Your task to perform on an android device: check the backup settings in the google photos Image 0: 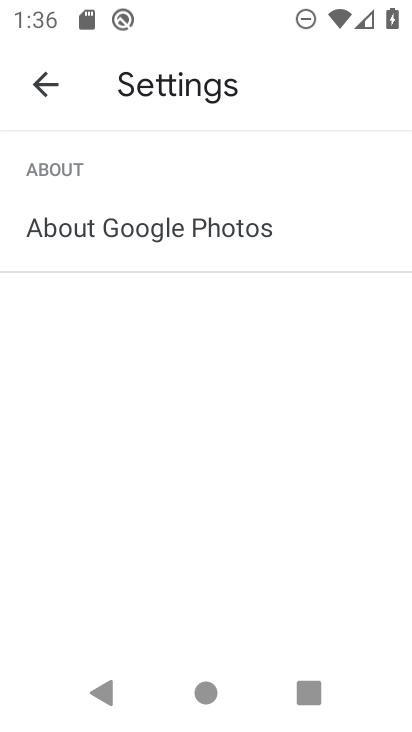
Step 0: press back button
Your task to perform on an android device: check the backup settings in the google photos Image 1: 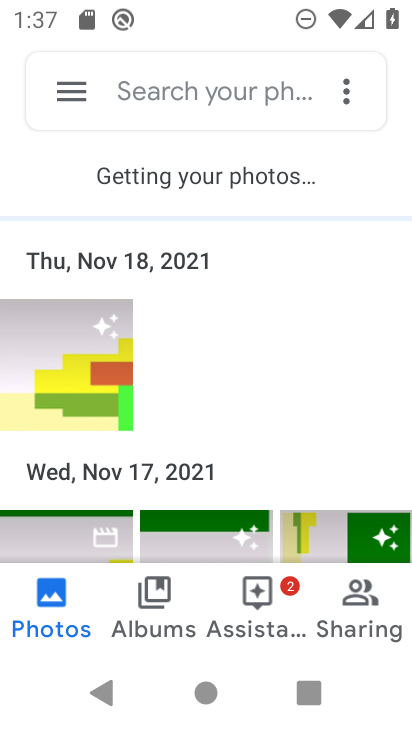
Step 1: click (72, 86)
Your task to perform on an android device: check the backup settings in the google photos Image 2: 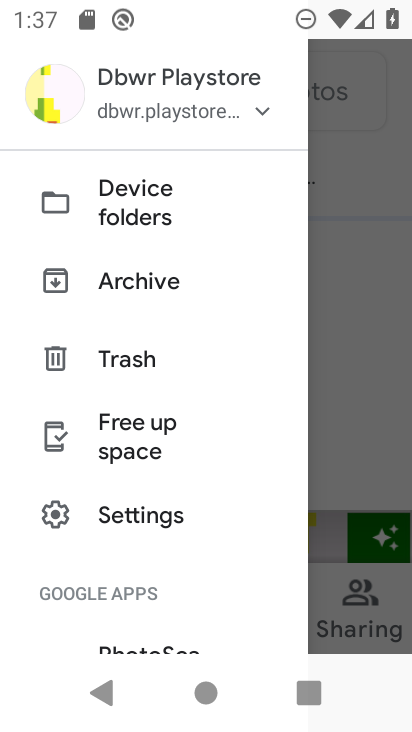
Step 2: drag from (139, 587) to (277, 243)
Your task to perform on an android device: check the backup settings in the google photos Image 3: 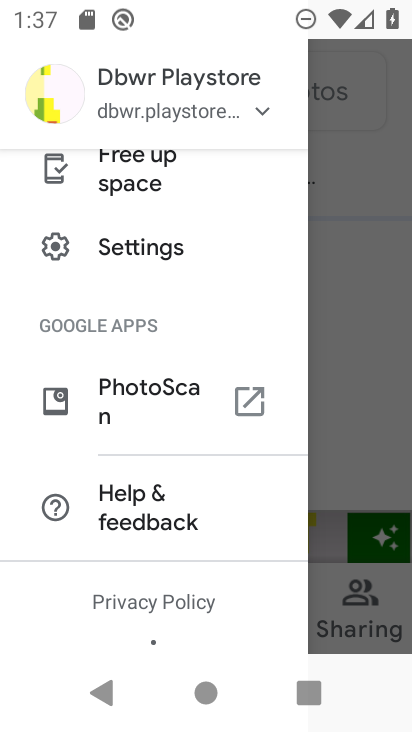
Step 3: click (207, 238)
Your task to perform on an android device: check the backup settings in the google photos Image 4: 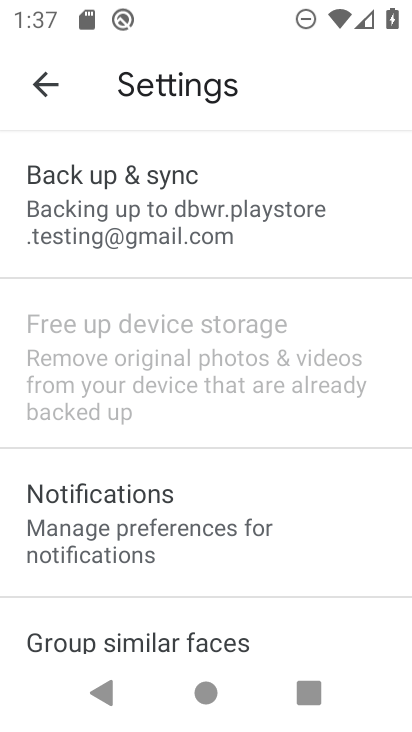
Step 4: click (206, 236)
Your task to perform on an android device: check the backup settings in the google photos Image 5: 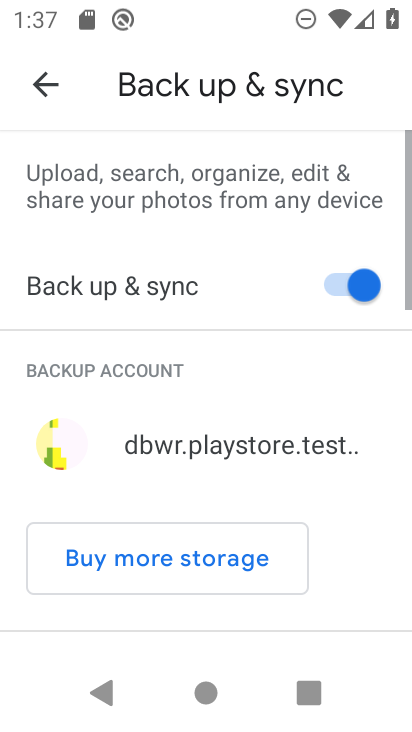
Step 5: task complete